Your task to perform on an android device: Open notification settings Image 0: 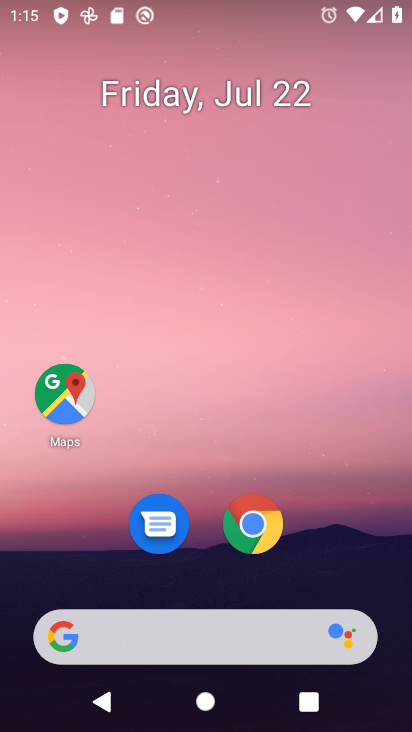
Step 0: drag from (204, 611) to (334, 111)
Your task to perform on an android device: Open notification settings Image 1: 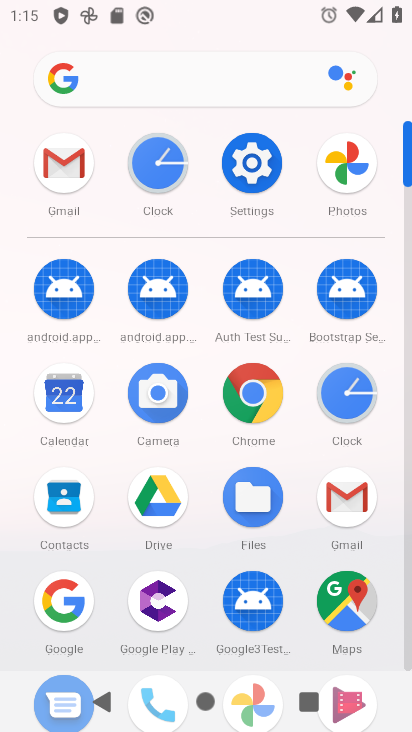
Step 1: click (256, 171)
Your task to perform on an android device: Open notification settings Image 2: 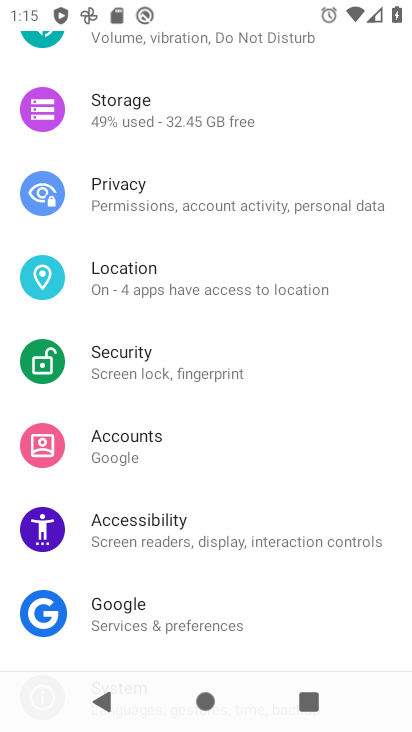
Step 2: drag from (276, 176) to (245, 497)
Your task to perform on an android device: Open notification settings Image 3: 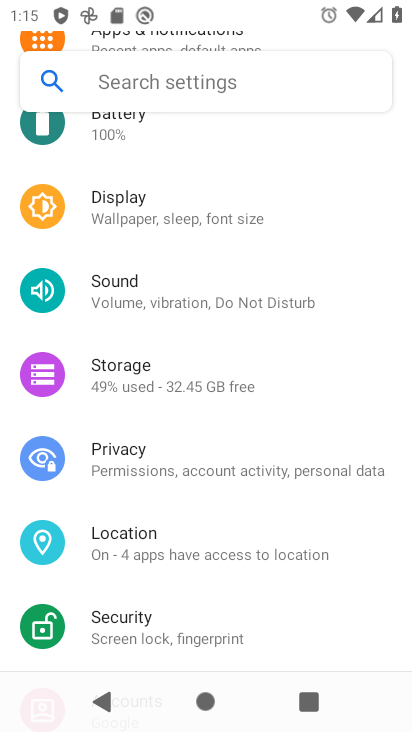
Step 3: drag from (258, 218) to (241, 534)
Your task to perform on an android device: Open notification settings Image 4: 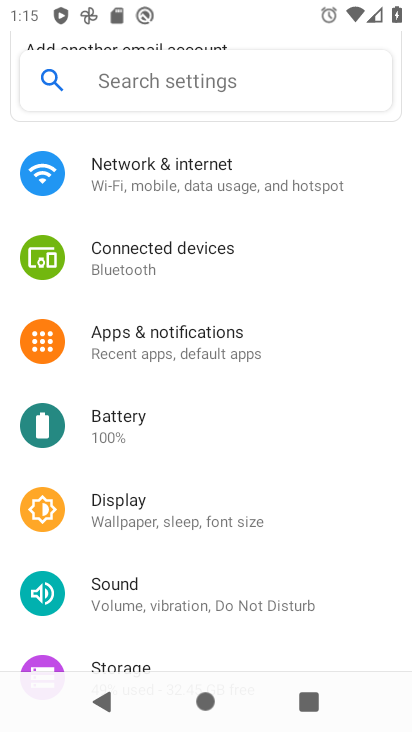
Step 4: click (195, 354)
Your task to perform on an android device: Open notification settings Image 5: 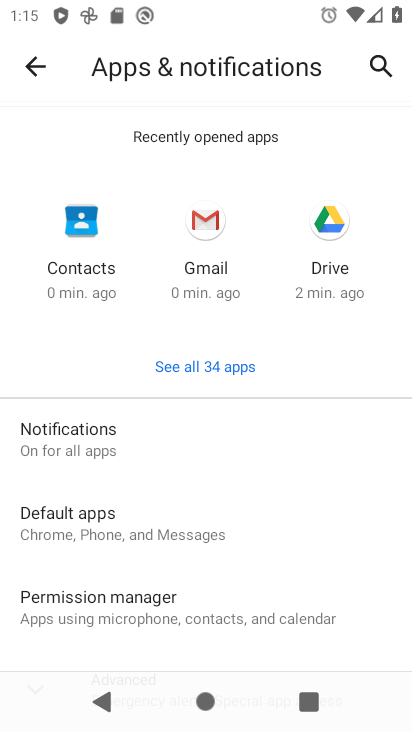
Step 5: click (89, 444)
Your task to perform on an android device: Open notification settings Image 6: 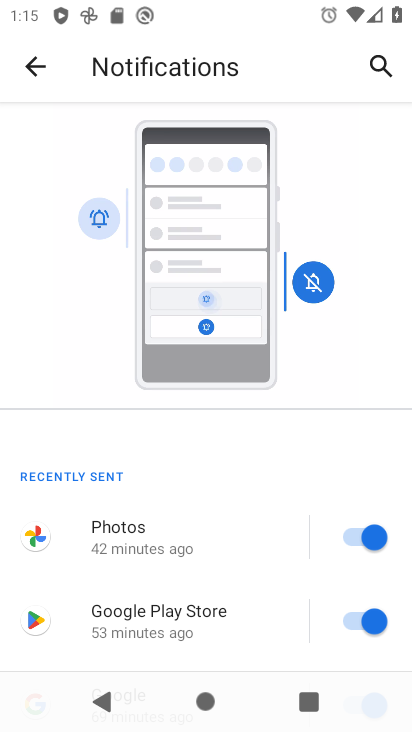
Step 6: task complete